Your task to perform on an android device: Check the news Image 0: 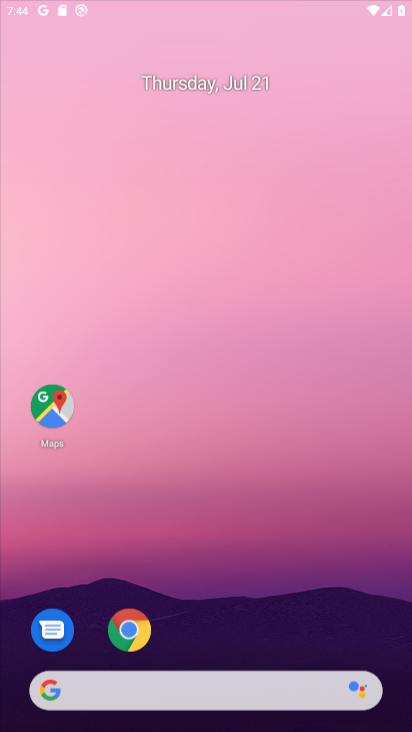
Step 0: click (207, 55)
Your task to perform on an android device: Check the news Image 1: 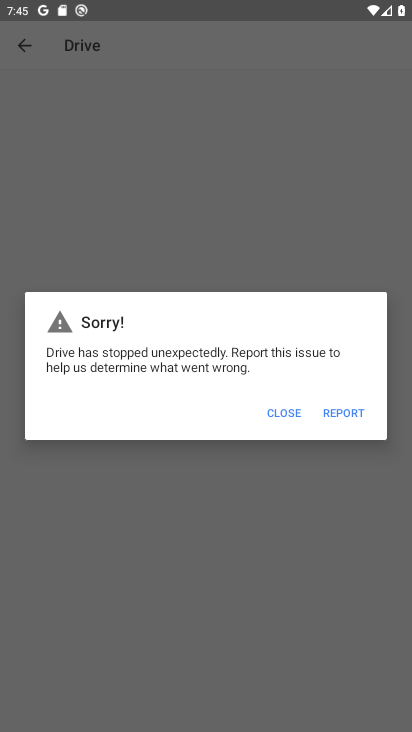
Step 1: press home button
Your task to perform on an android device: Check the news Image 2: 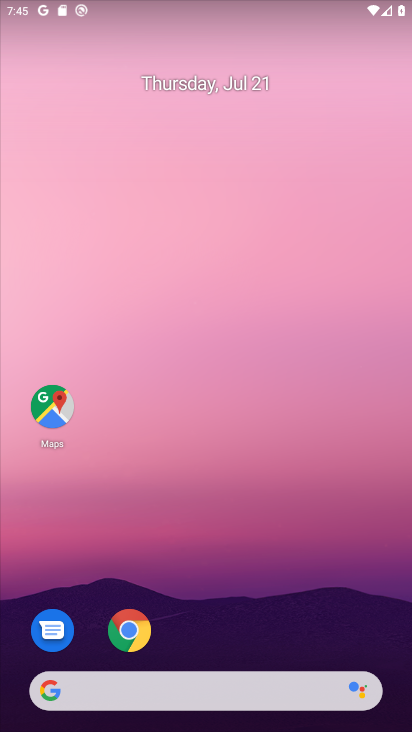
Step 2: click (192, 685)
Your task to perform on an android device: Check the news Image 3: 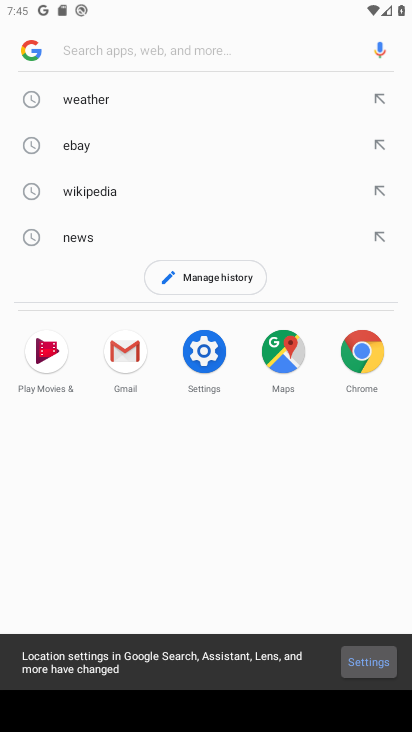
Step 3: click (89, 238)
Your task to perform on an android device: Check the news Image 4: 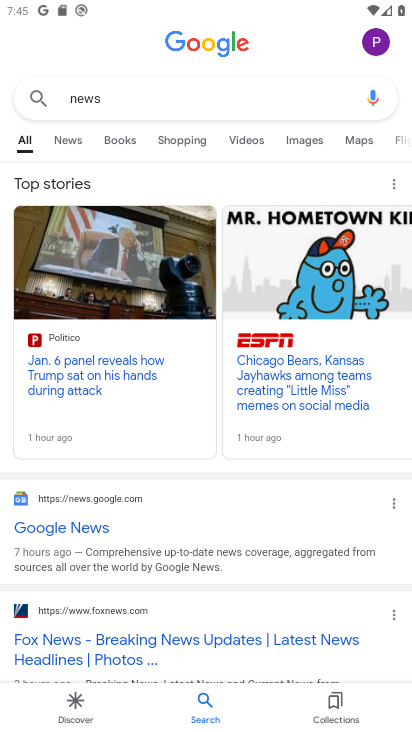
Step 4: task complete